Your task to perform on an android device: toggle sleep mode Image 0: 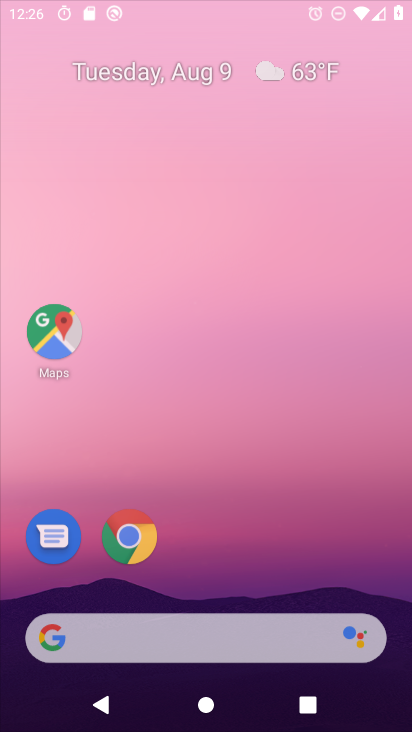
Step 0: press home button
Your task to perform on an android device: toggle sleep mode Image 1: 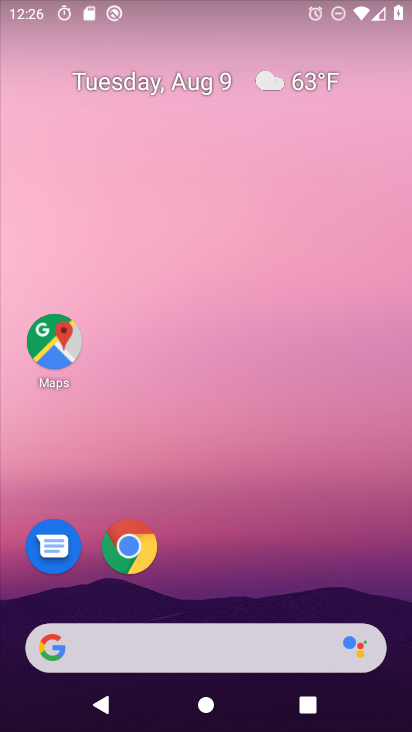
Step 1: drag from (233, 608) to (216, 113)
Your task to perform on an android device: toggle sleep mode Image 2: 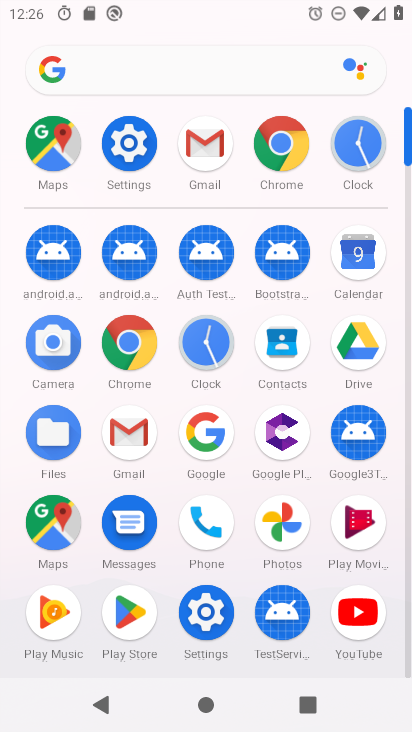
Step 2: click (126, 137)
Your task to perform on an android device: toggle sleep mode Image 3: 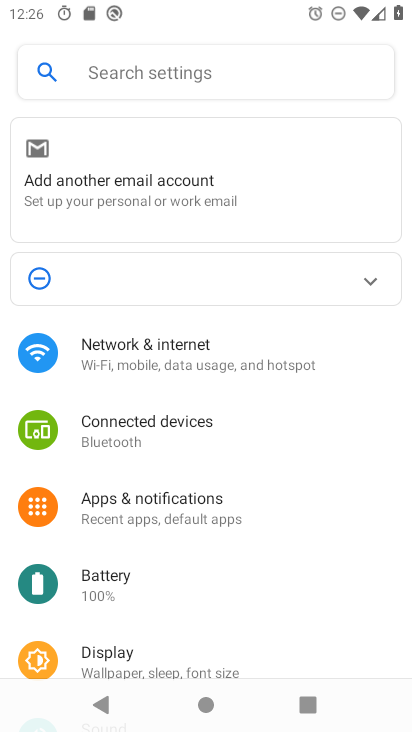
Step 3: drag from (250, 661) to (256, 47)
Your task to perform on an android device: toggle sleep mode Image 4: 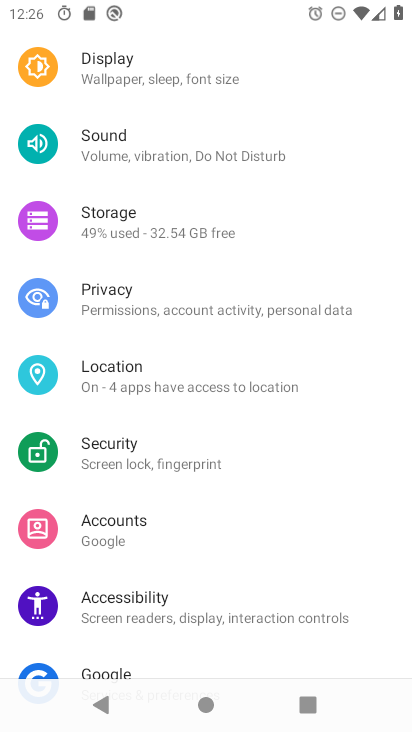
Step 4: click (139, 71)
Your task to perform on an android device: toggle sleep mode Image 5: 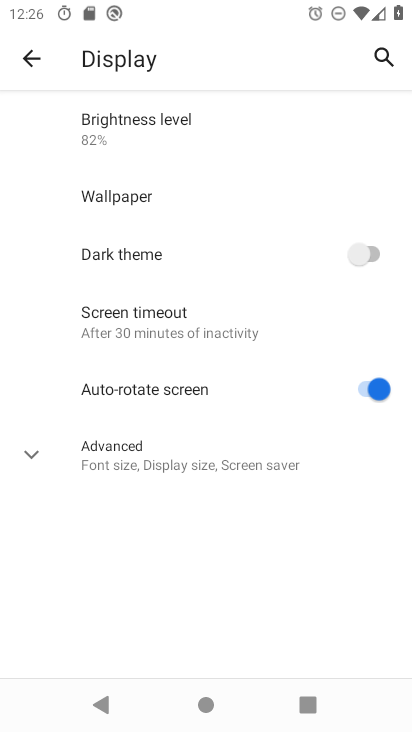
Step 5: click (27, 447)
Your task to perform on an android device: toggle sleep mode Image 6: 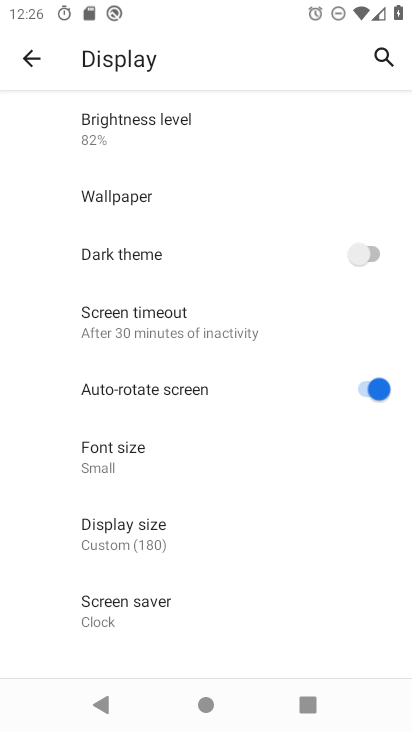
Step 6: task complete